Your task to perform on an android device: Go to sound settings Image 0: 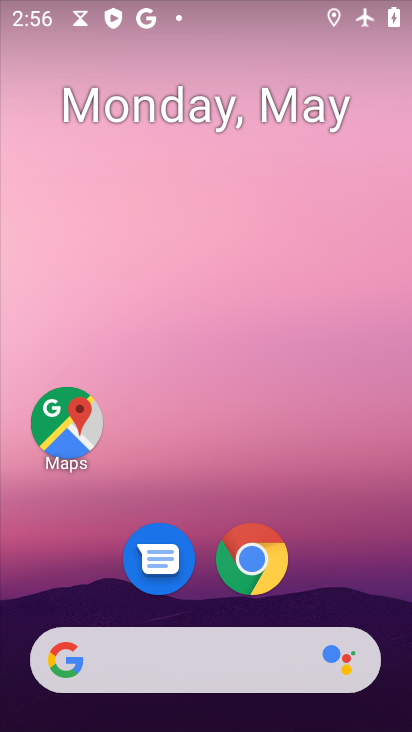
Step 0: drag from (338, 567) to (263, 40)
Your task to perform on an android device: Go to sound settings Image 1: 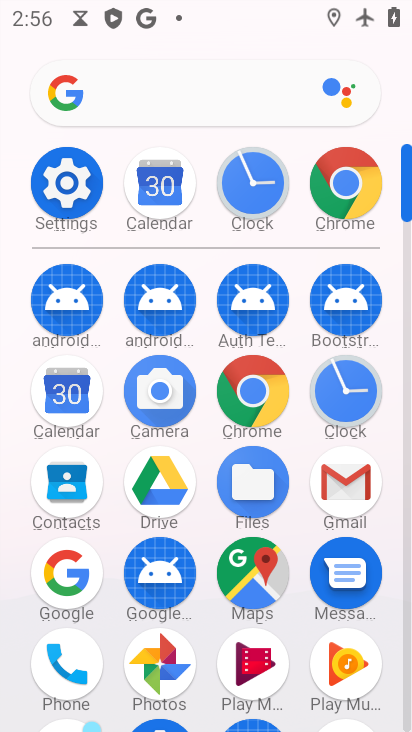
Step 1: click (83, 187)
Your task to perform on an android device: Go to sound settings Image 2: 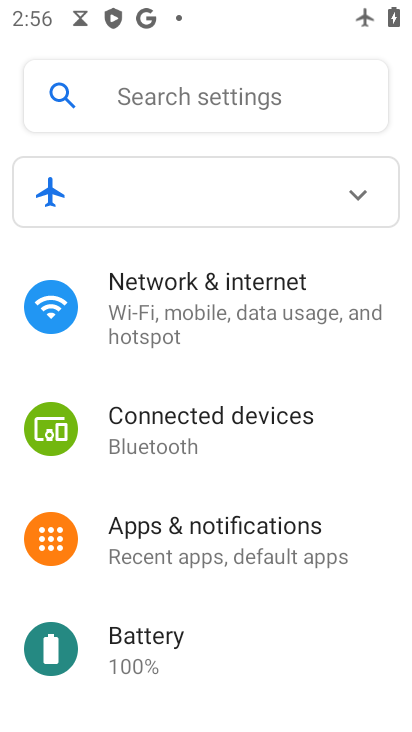
Step 2: drag from (188, 625) to (178, 145)
Your task to perform on an android device: Go to sound settings Image 3: 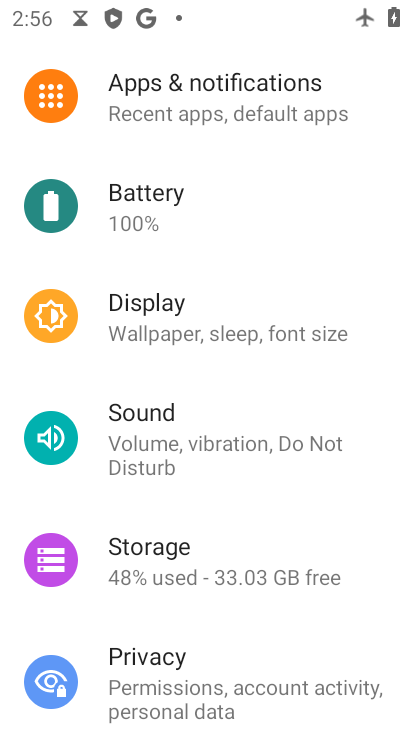
Step 3: click (171, 446)
Your task to perform on an android device: Go to sound settings Image 4: 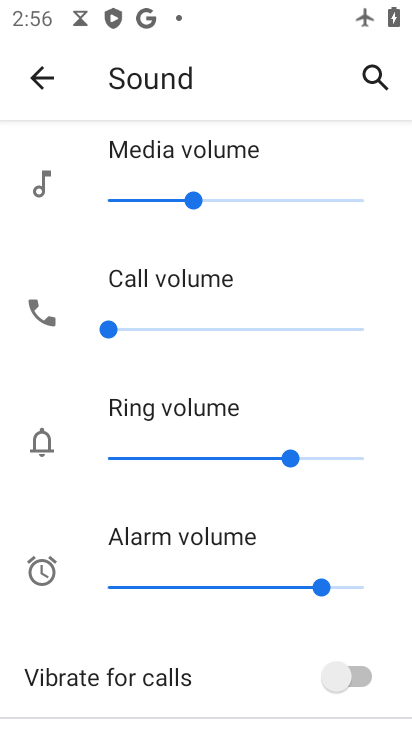
Step 4: task complete